Your task to perform on an android device: Open Amazon Image 0: 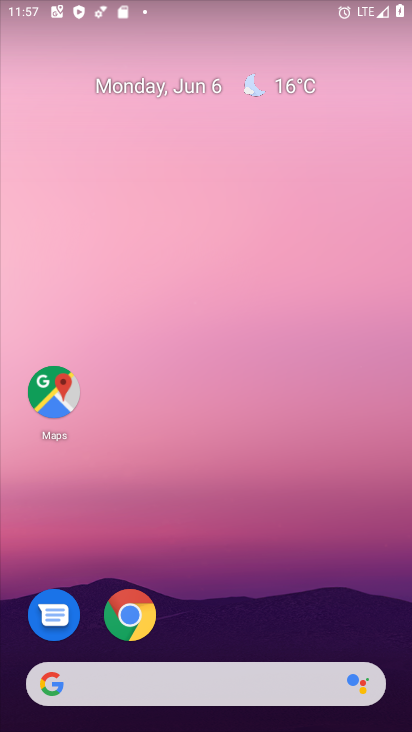
Step 0: press home button
Your task to perform on an android device: Open Amazon Image 1: 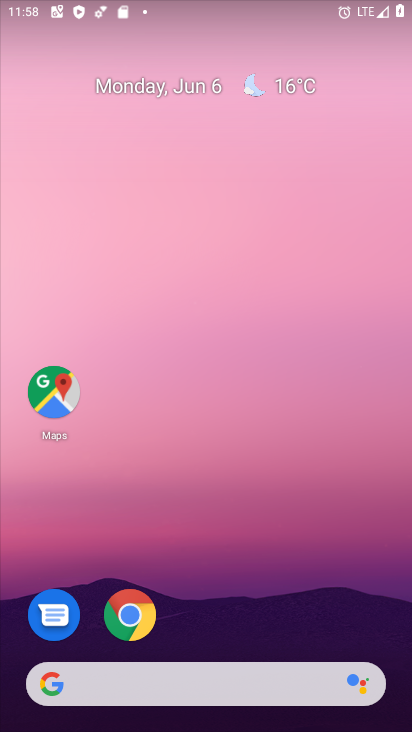
Step 1: click (128, 608)
Your task to perform on an android device: Open Amazon Image 2: 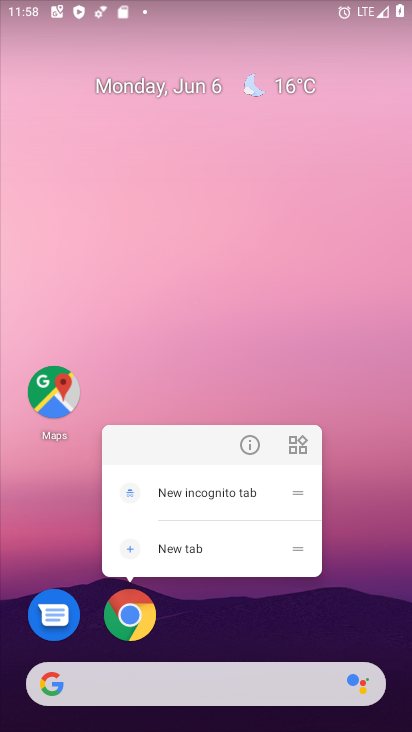
Step 2: click (128, 608)
Your task to perform on an android device: Open Amazon Image 3: 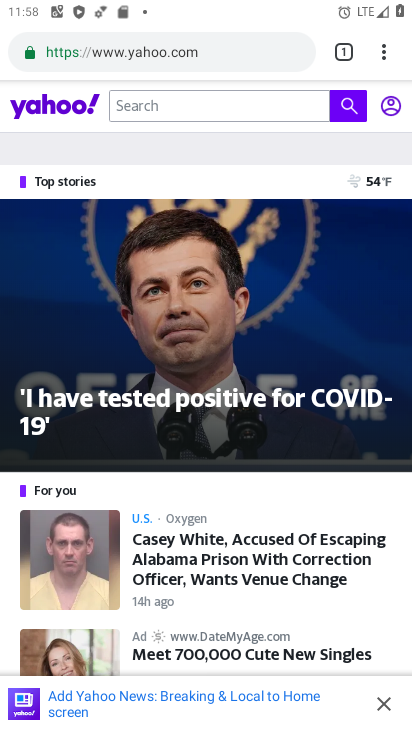
Step 3: click (340, 46)
Your task to perform on an android device: Open Amazon Image 4: 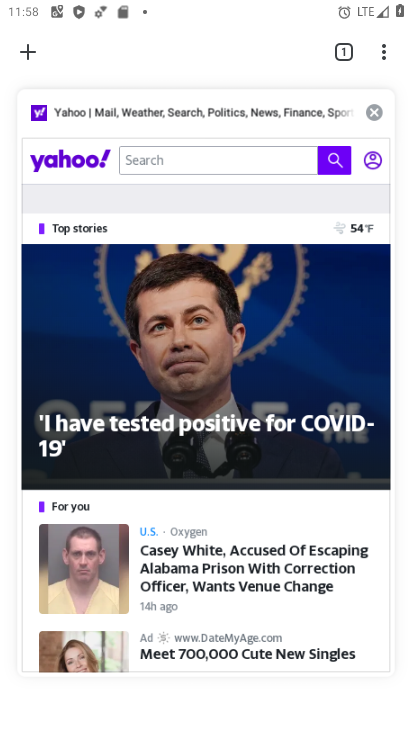
Step 4: click (33, 52)
Your task to perform on an android device: Open Amazon Image 5: 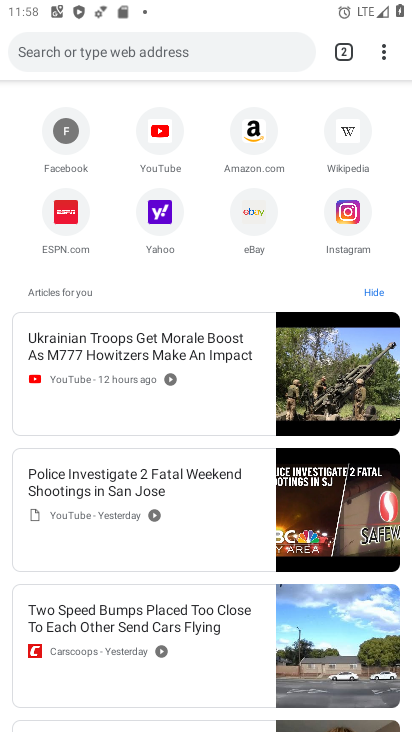
Step 5: click (252, 123)
Your task to perform on an android device: Open Amazon Image 6: 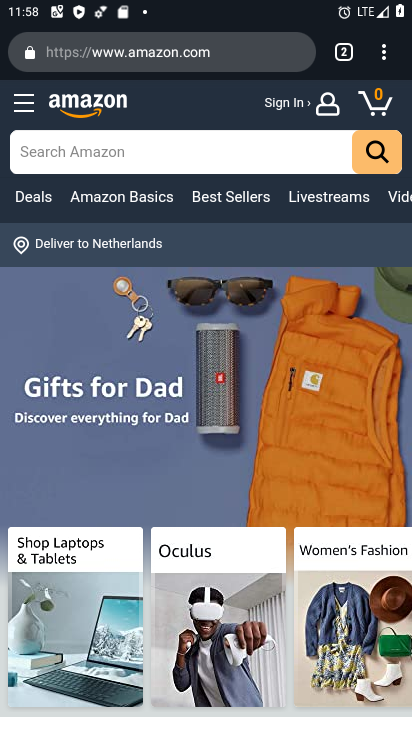
Step 6: task complete